Your task to perform on an android device: turn on notifications settings in the gmail app Image 0: 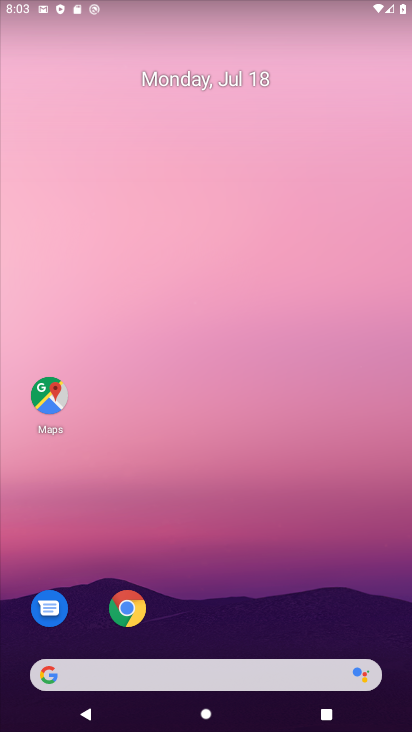
Step 0: drag from (244, 525) to (281, 12)
Your task to perform on an android device: turn on notifications settings in the gmail app Image 1: 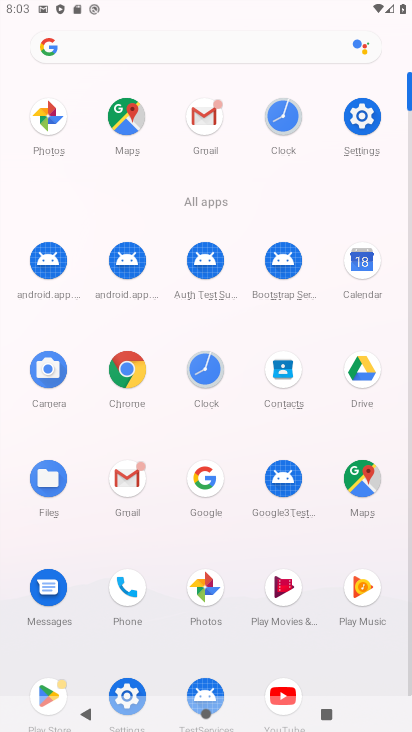
Step 1: click (209, 121)
Your task to perform on an android device: turn on notifications settings in the gmail app Image 2: 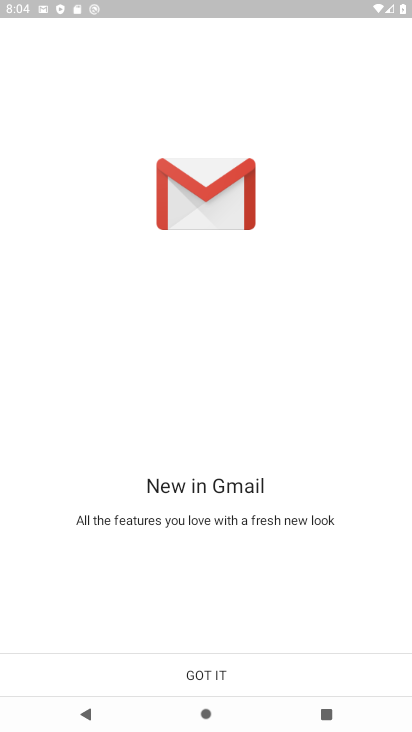
Step 2: click (101, 667)
Your task to perform on an android device: turn on notifications settings in the gmail app Image 3: 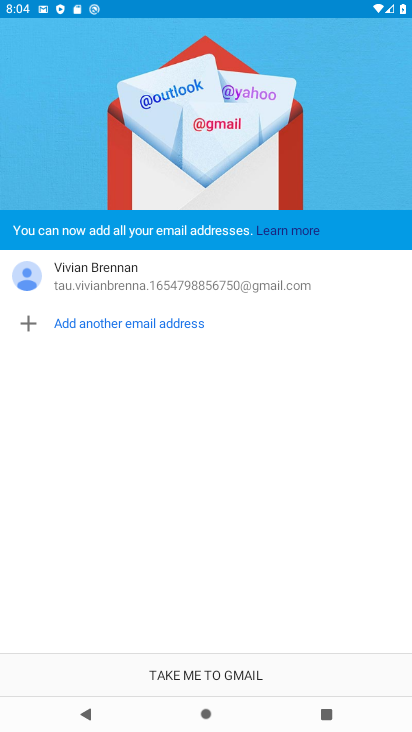
Step 3: click (101, 667)
Your task to perform on an android device: turn on notifications settings in the gmail app Image 4: 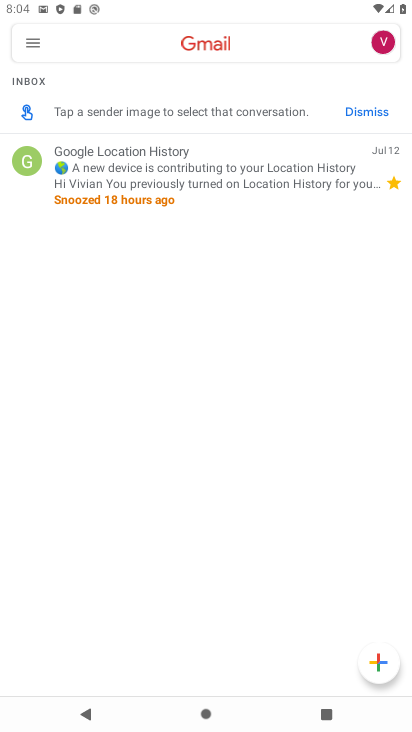
Step 4: click (37, 45)
Your task to perform on an android device: turn on notifications settings in the gmail app Image 5: 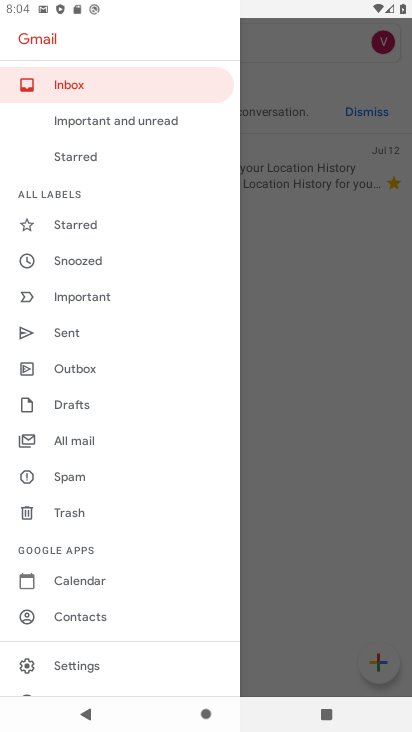
Step 5: click (148, 653)
Your task to perform on an android device: turn on notifications settings in the gmail app Image 6: 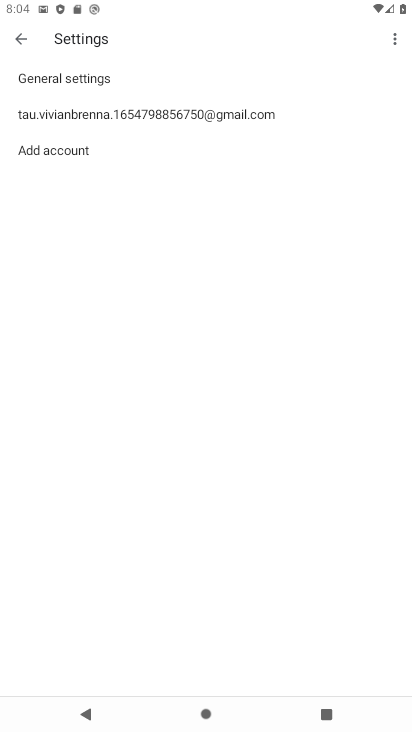
Step 6: click (95, 107)
Your task to perform on an android device: turn on notifications settings in the gmail app Image 7: 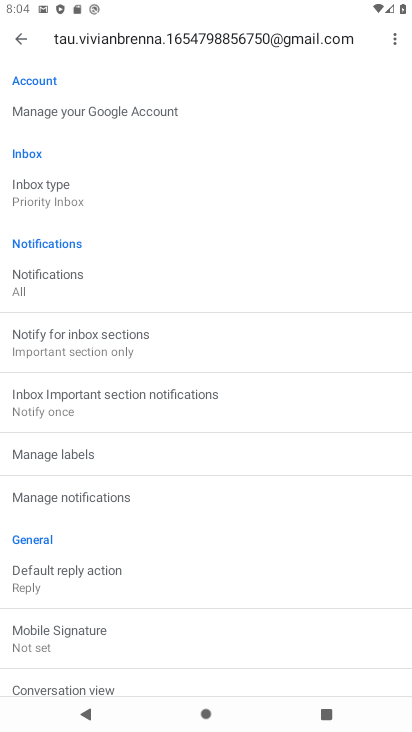
Step 7: click (51, 483)
Your task to perform on an android device: turn on notifications settings in the gmail app Image 8: 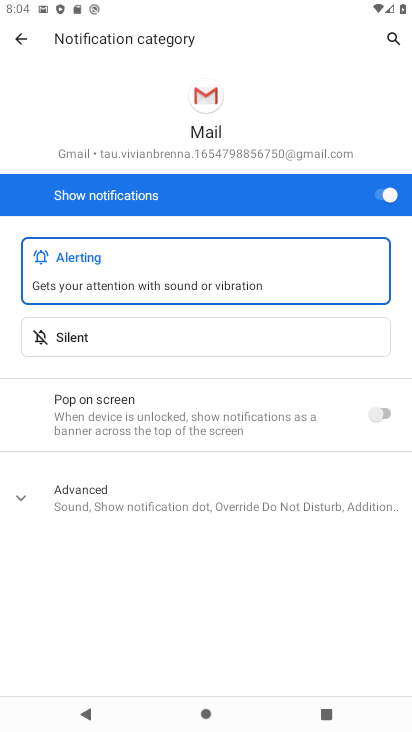
Step 8: task complete